Your task to perform on an android device: Search for Italian restaurants on Maps Image 0: 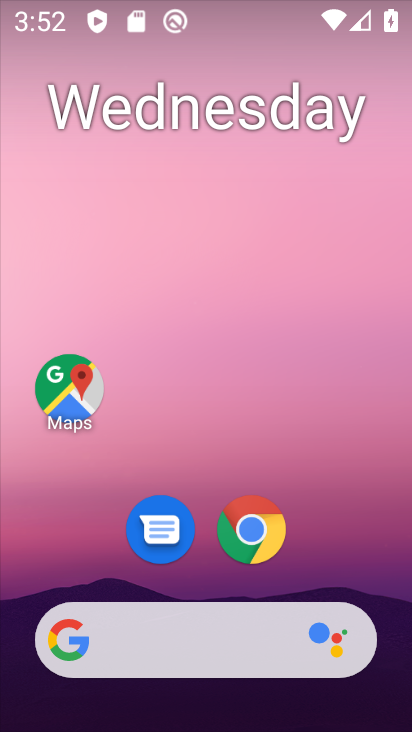
Step 0: click (64, 379)
Your task to perform on an android device: Search for Italian restaurants on Maps Image 1: 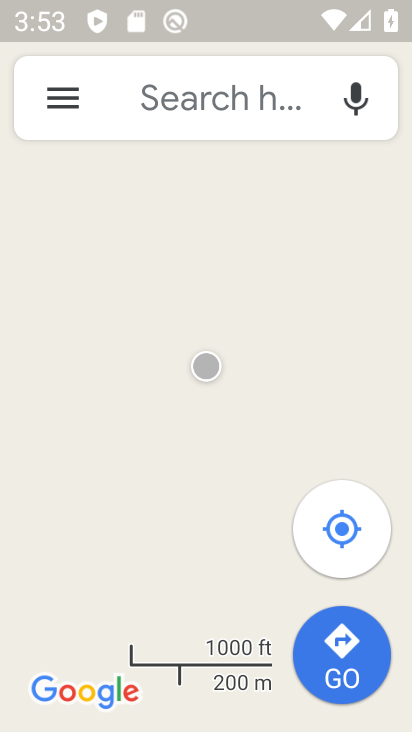
Step 1: click (229, 96)
Your task to perform on an android device: Search for Italian restaurants on Maps Image 2: 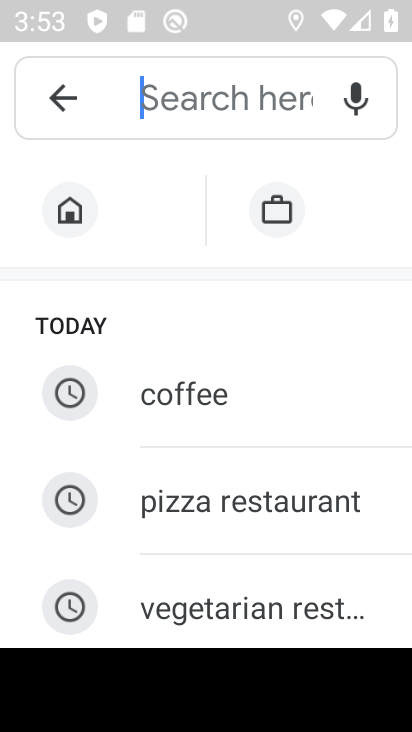
Step 2: drag from (286, 562) to (301, 383)
Your task to perform on an android device: Search for Italian restaurants on Maps Image 3: 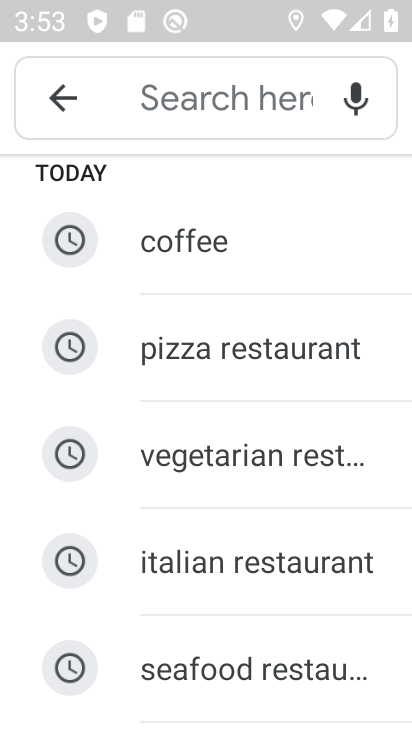
Step 3: click (284, 573)
Your task to perform on an android device: Search for Italian restaurants on Maps Image 4: 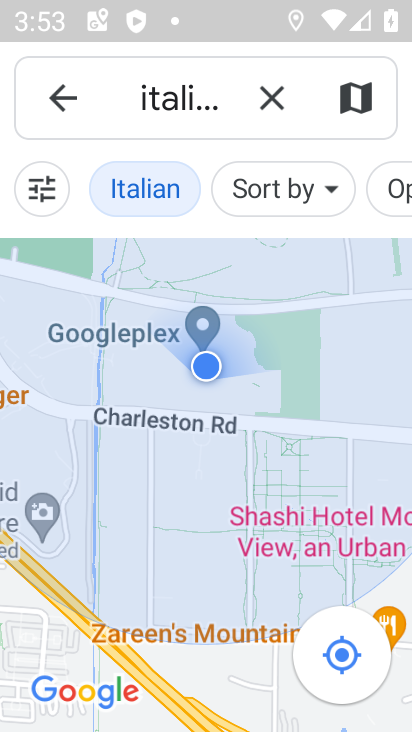
Step 4: task complete